Your task to perform on an android device: Check the news Image 0: 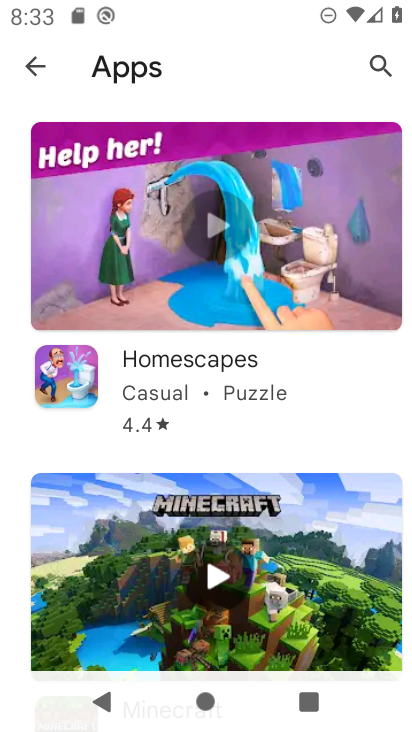
Step 0: press home button
Your task to perform on an android device: Check the news Image 1: 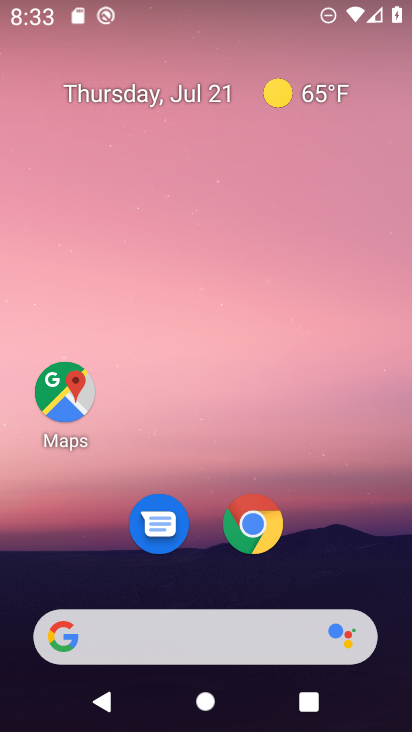
Step 1: drag from (212, 625) to (169, 220)
Your task to perform on an android device: Check the news Image 2: 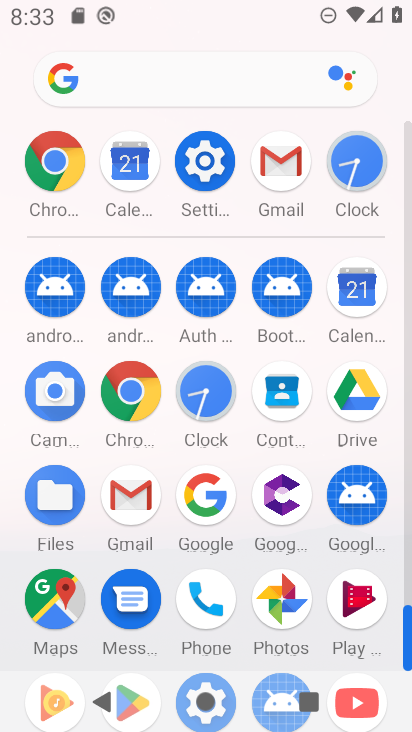
Step 2: click (53, 182)
Your task to perform on an android device: Check the news Image 3: 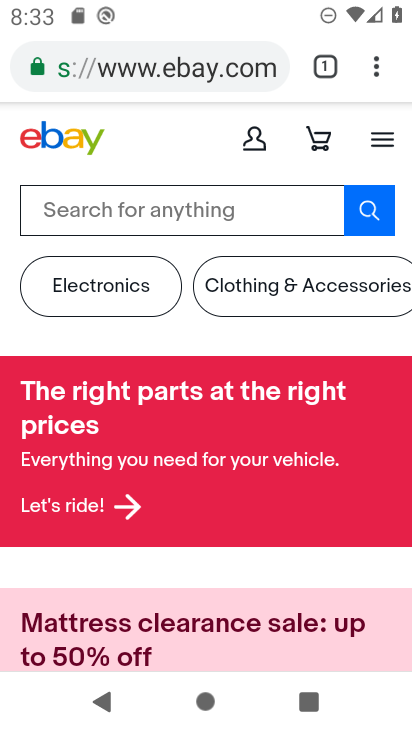
Step 3: click (215, 71)
Your task to perform on an android device: Check the news Image 4: 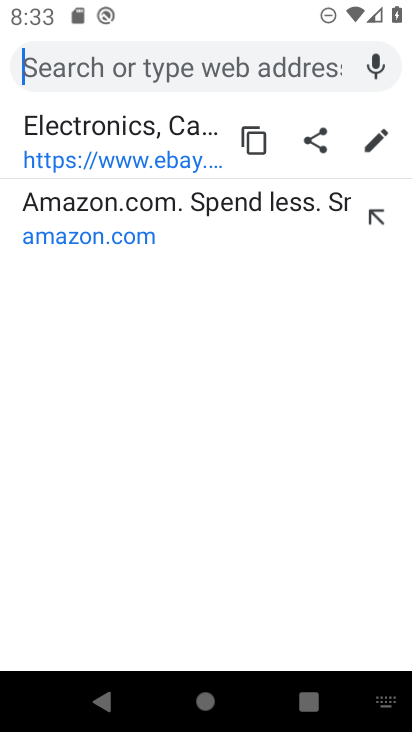
Step 4: type "news"
Your task to perform on an android device: Check the news Image 5: 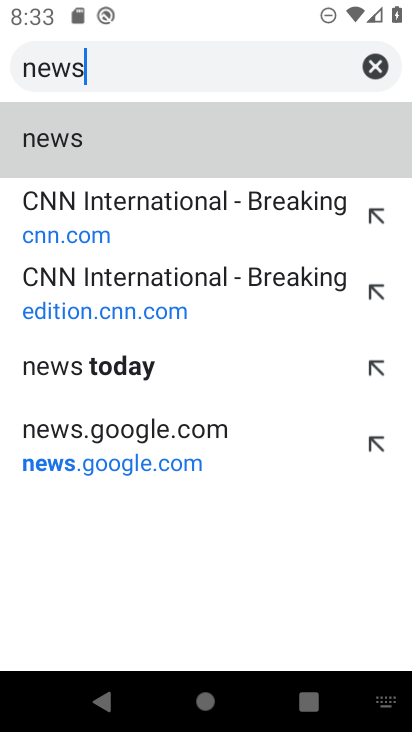
Step 5: click (115, 143)
Your task to perform on an android device: Check the news Image 6: 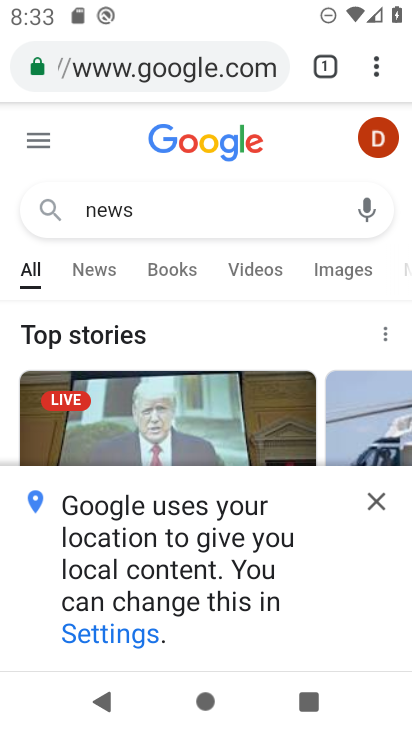
Step 6: click (376, 504)
Your task to perform on an android device: Check the news Image 7: 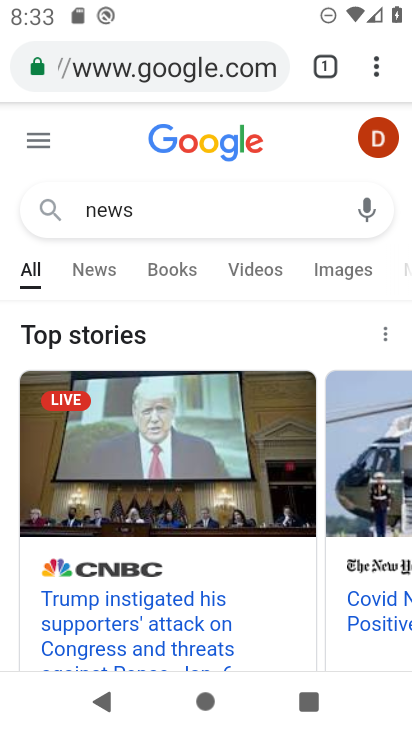
Step 7: task complete